Your task to perform on an android device: Go to CNN.com Image 0: 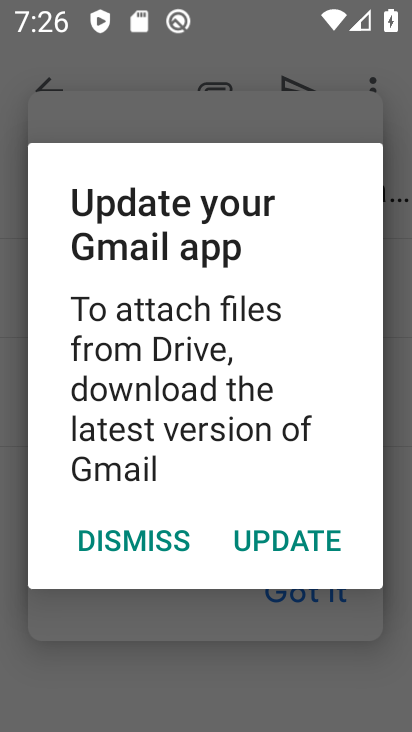
Step 0: press home button
Your task to perform on an android device: Go to CNN.com Image 1: 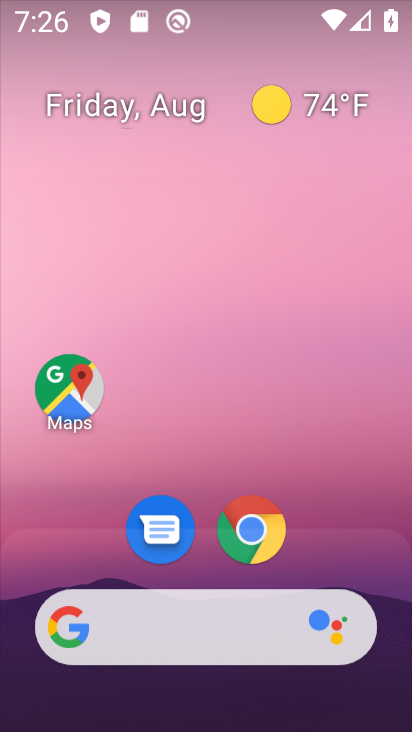
Step 1: click (257, 528)
Your task to perform on an android device: Go to CNN.com Image 2: 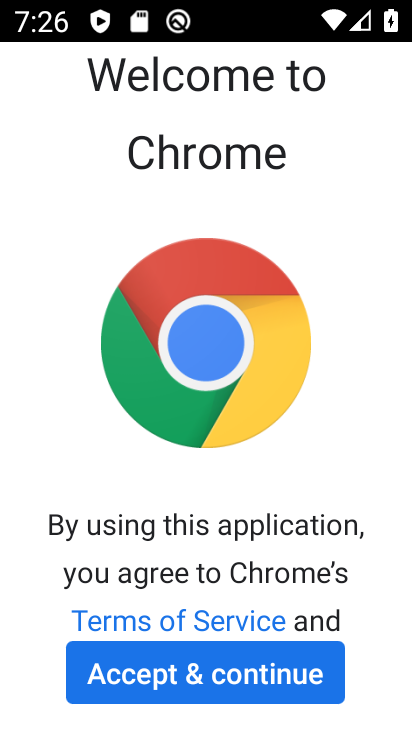
Step 2: click (234, 678)
Your task to perform on an android device: Go to CNN.com Image 3: 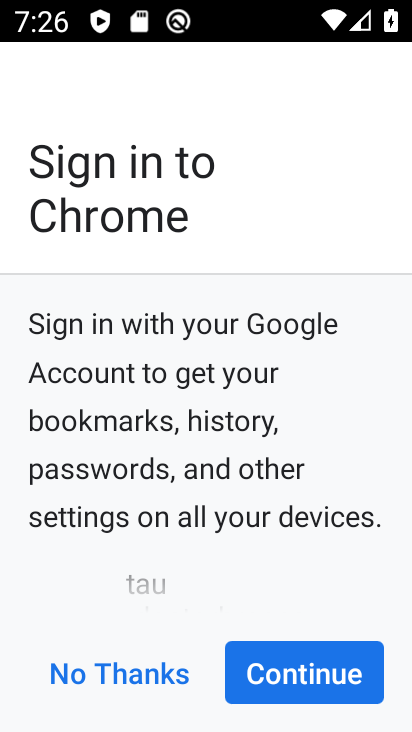
Step 3: click (263, 676)
Your task to perform on an android device: Go to CNN.com Image 4: 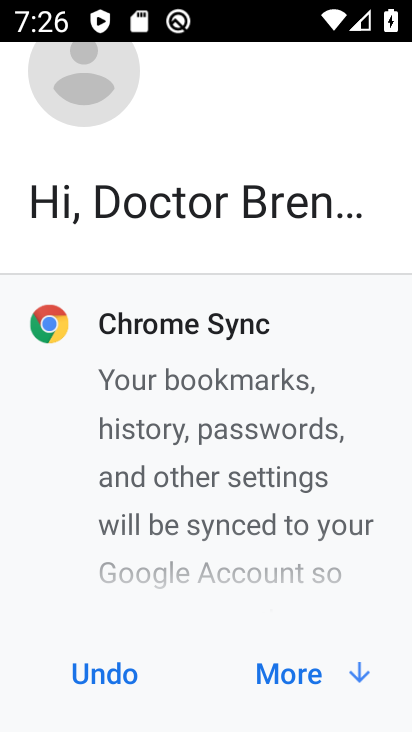
Step 4: click (272, 677)
Your task to perform on an android device: Go to CNN.com Image 5: 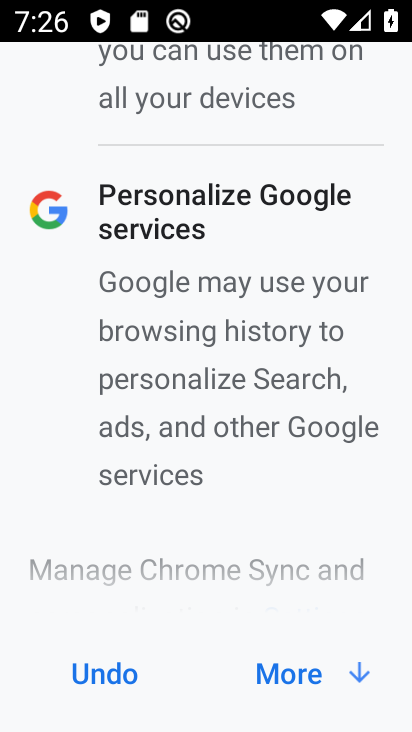
Step 5: click (272, 677)
Your task to perform on an android device: Go to CNN.com Image 6: 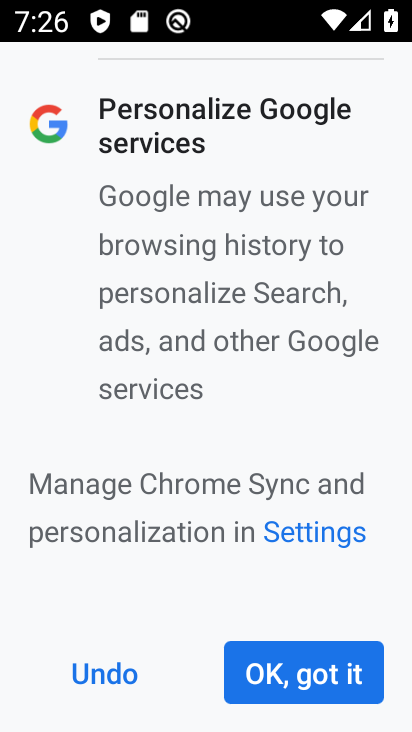
Step 6: click (272, 677)
Your task to perform on an android device: Go to CNN.com Image 7: 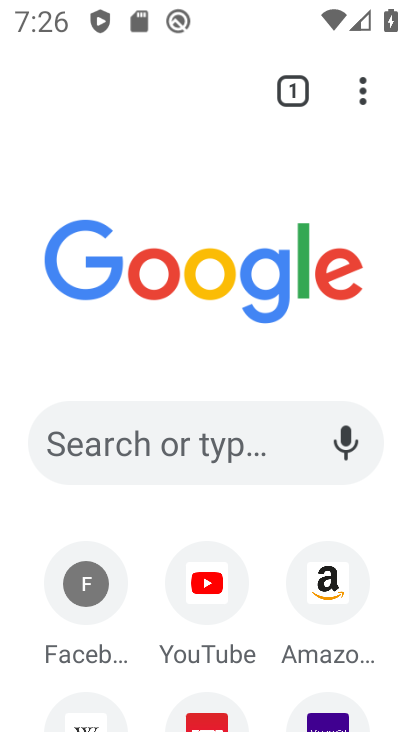
Step 7: click (218, 451)
Your task to perform on an android device: Go to CNN.com Image 8: 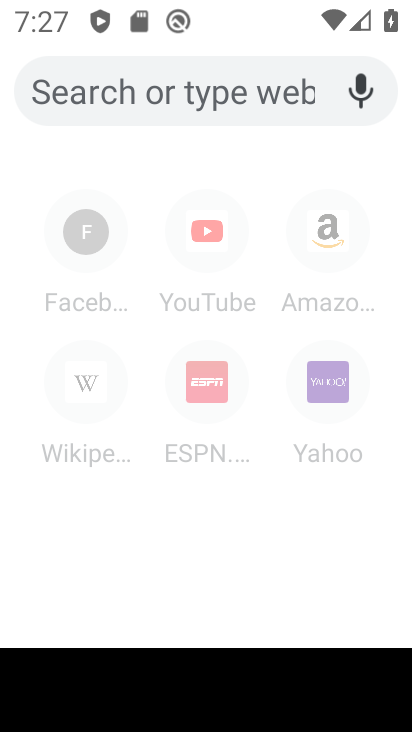
Step 8: type "CNN.com"
Your task to perform on an android device: Go to CNN.com Image 9: 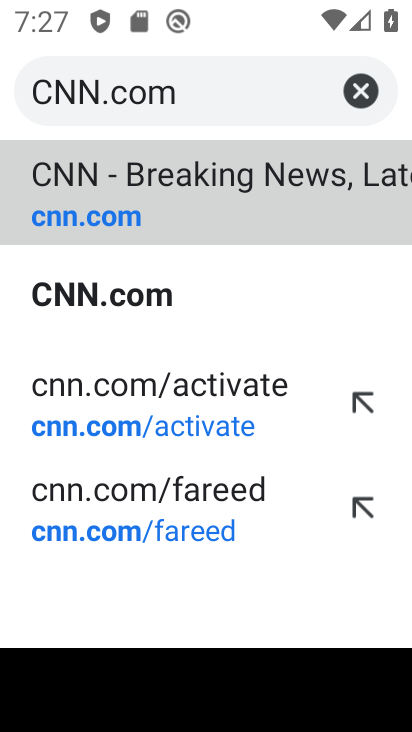
Step 9: click (115, 307)
Your task to perform on an android device: Go to CNN.com Image 10: 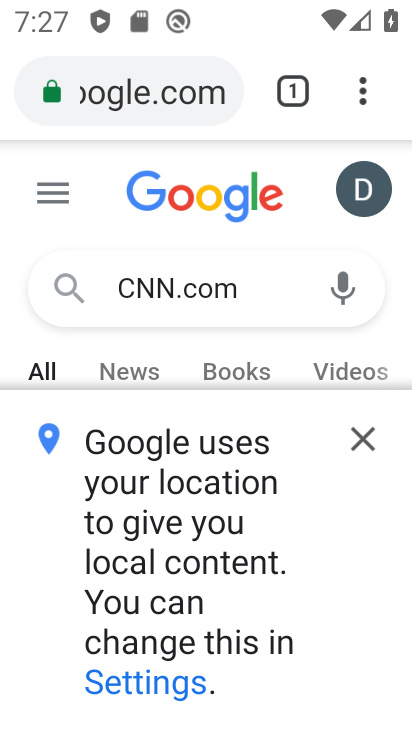
Step 10: click (362, 444)
Your task to perform on an android device: Go to CNN.com Image 11: 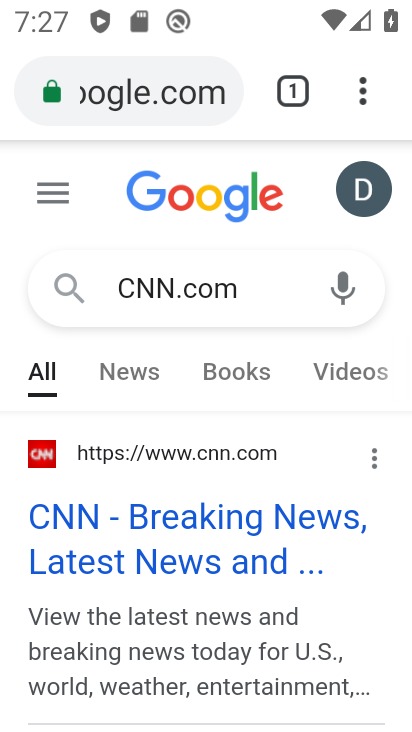
Step 11: click (272, 538)
Your task to perform on an android device: Go to CNN.com Image 12: 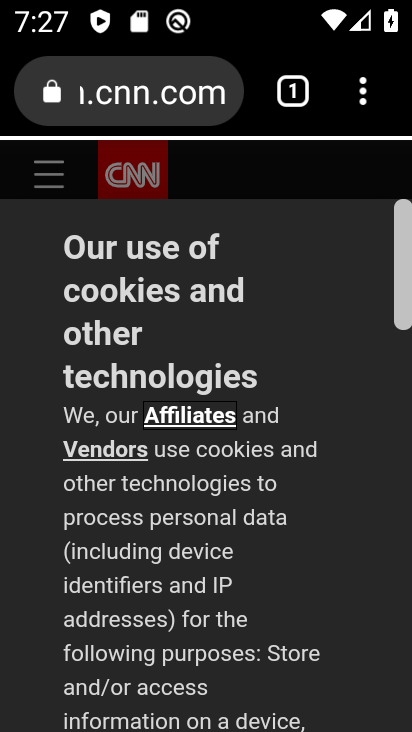
Step 12: drag from (276, 596) to (384, 410)
Your task to perform on an android device: Go to CNN.com Image 13: 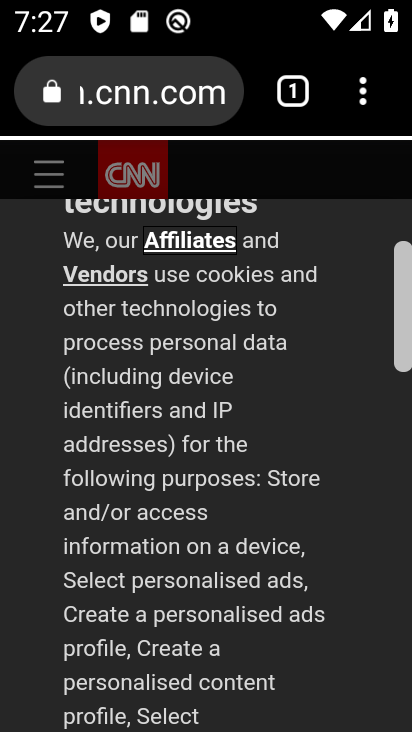
Step 13: drag from (303, 649) to (369, 376)
Your task to perform on an android device: Go to CNN.com Image 14: 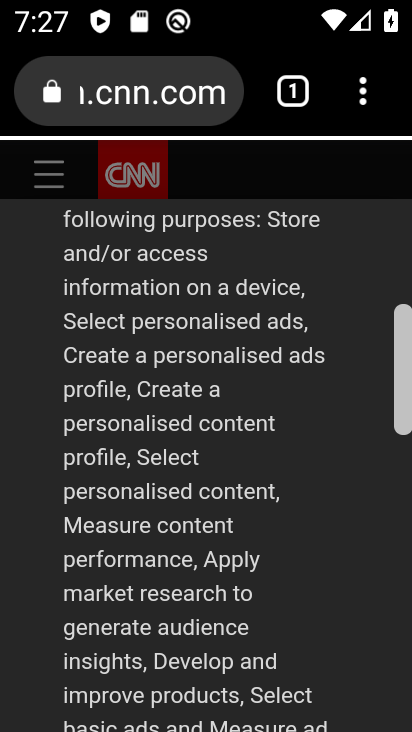
Step 14: drag from (287, 668) to (370, 285)
Your task to perform on an android device: Go to CNN.com Image 15: 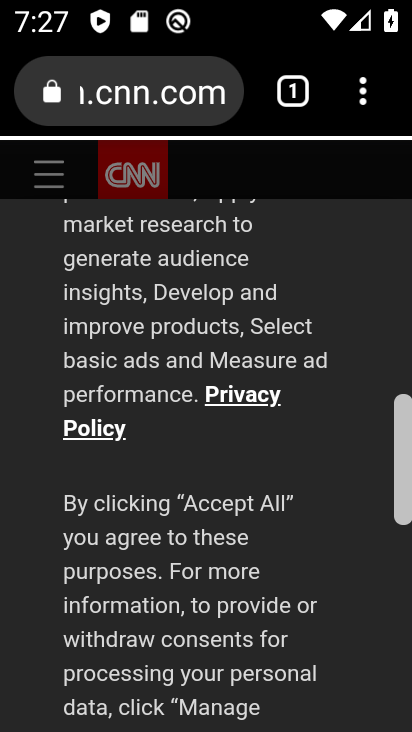
Step 15: drag from (285, 621) to (379, 294)
Your task to perform on an android device: Go to CNN.com Image 16: 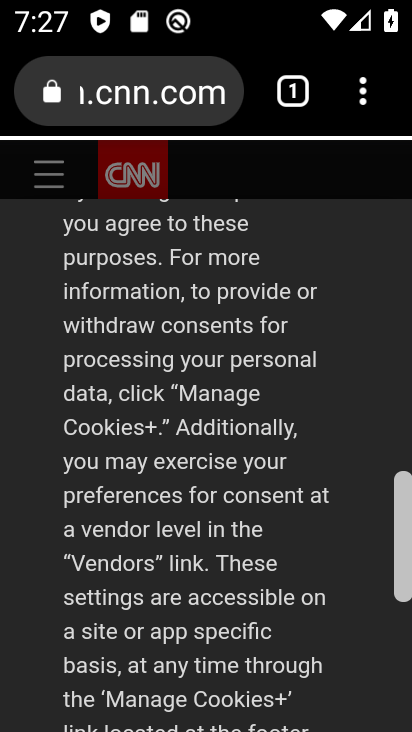
Step 16: drag from (299, 653) to (411, 284)
Your task to perform on an android device: Go to CNN.com Image 17: 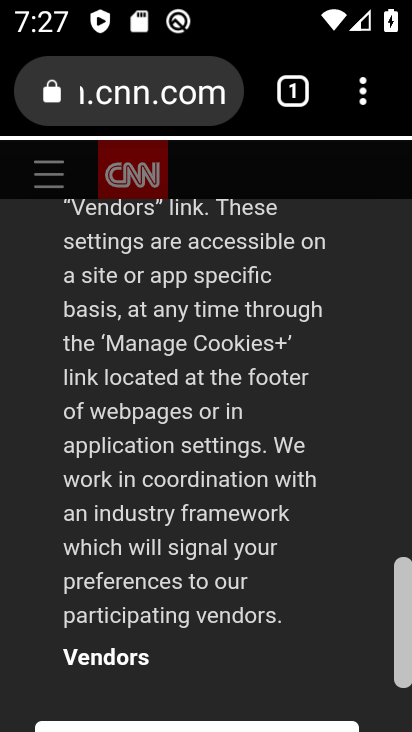
Step 17: drag from (311, 635) to (410, 336)
Your task to perform on an android device: Go to CNN.com Image 18: 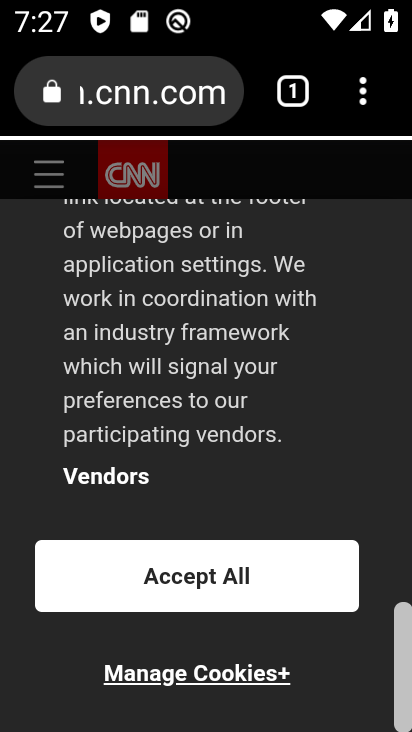
Step 18: click (228, 575)
Your task to perform on an android device: Go to CNN.com Image 19: 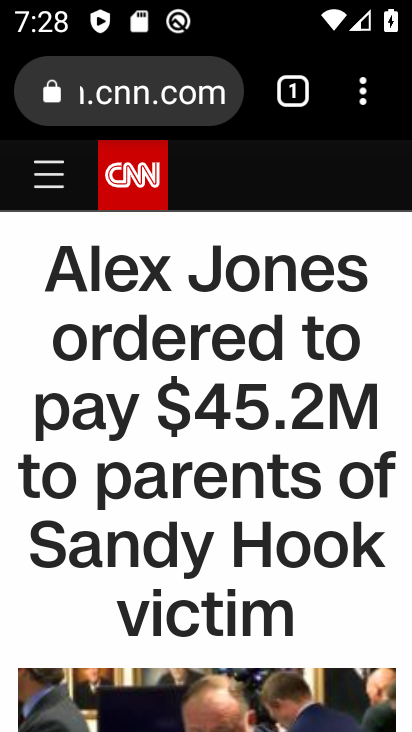
Step 19: task complete